Your task to perform on an android device: turn off picture-in-picture Image 0: 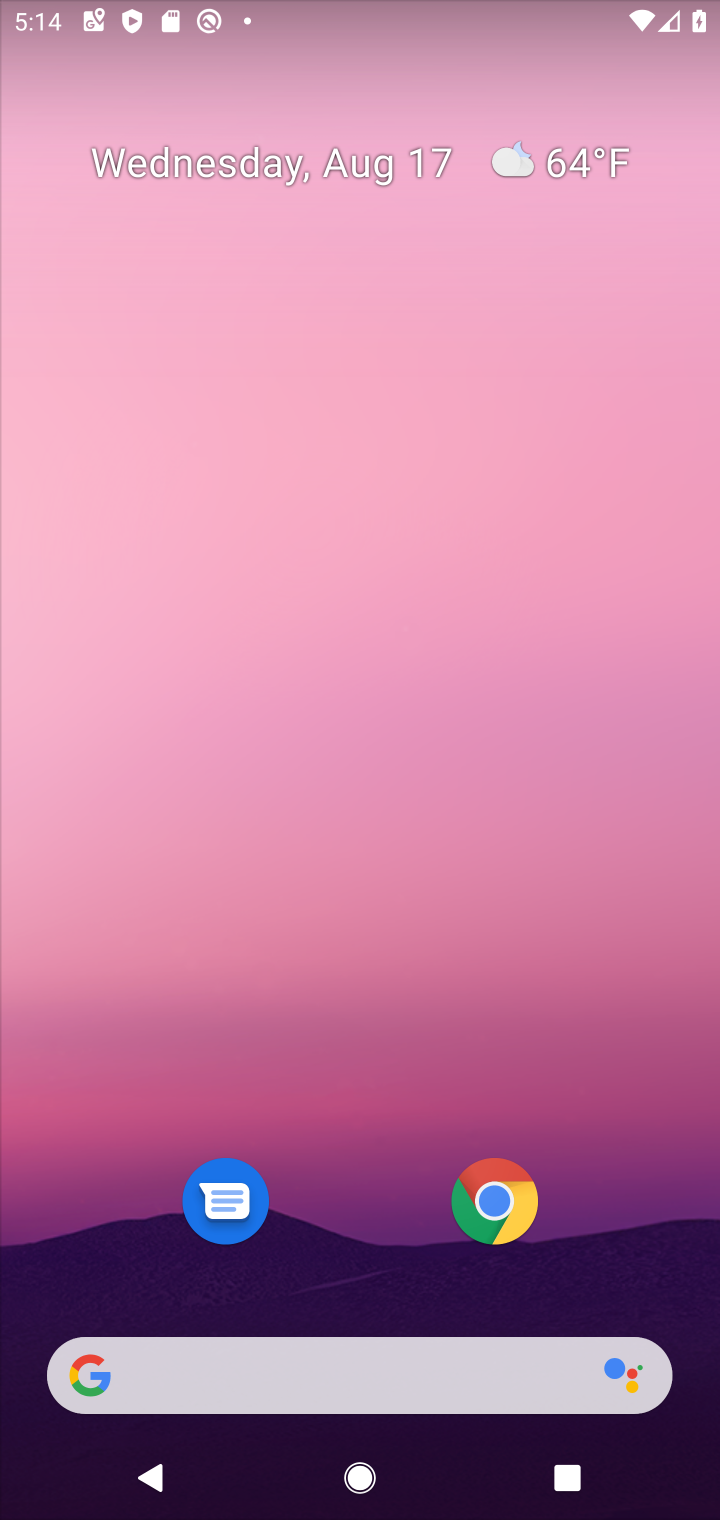
Step 0: click (489, 1241)
Your task to perform on an android device: turn off picture-in-picture Image 1: 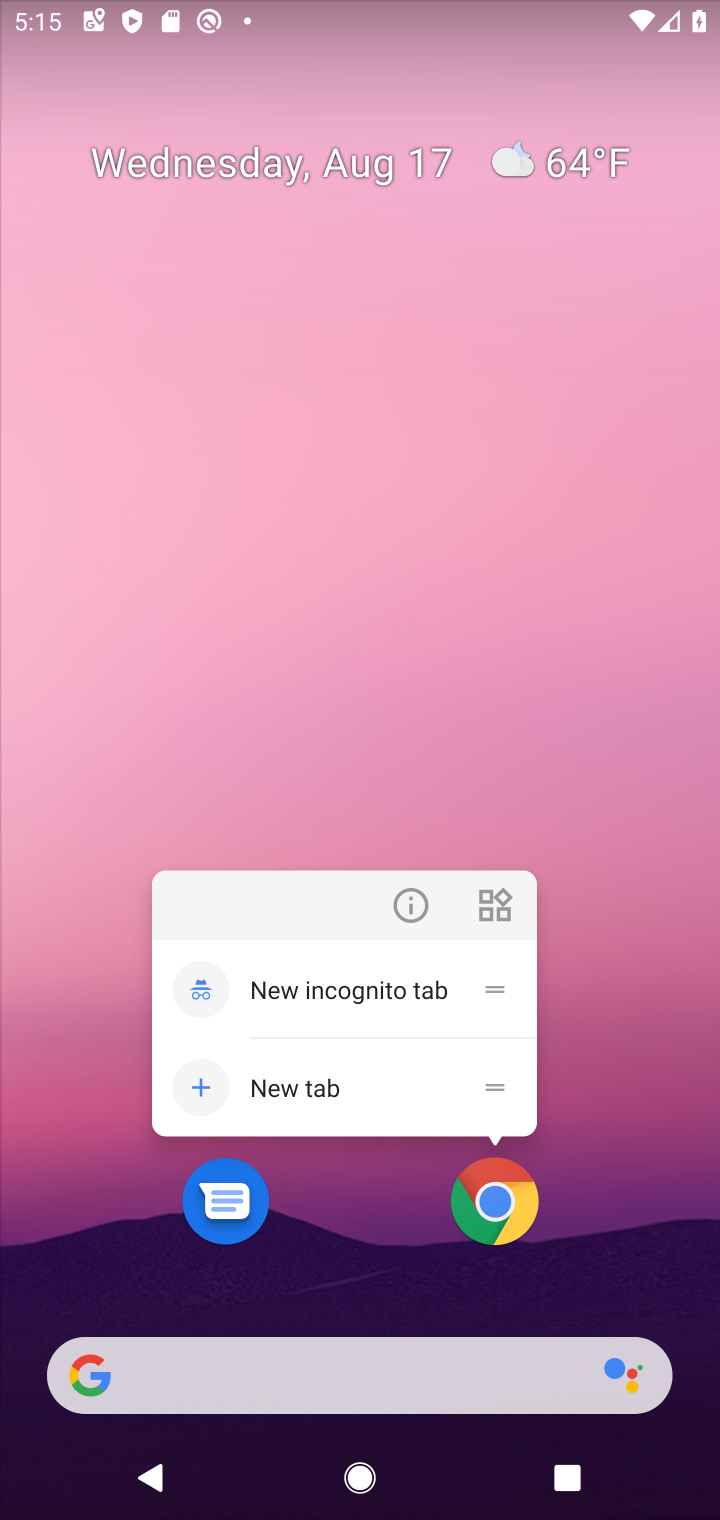
Step 1: click (430, 915)
Your task to perform on an android device: turn off picture-in-picture Image 2: 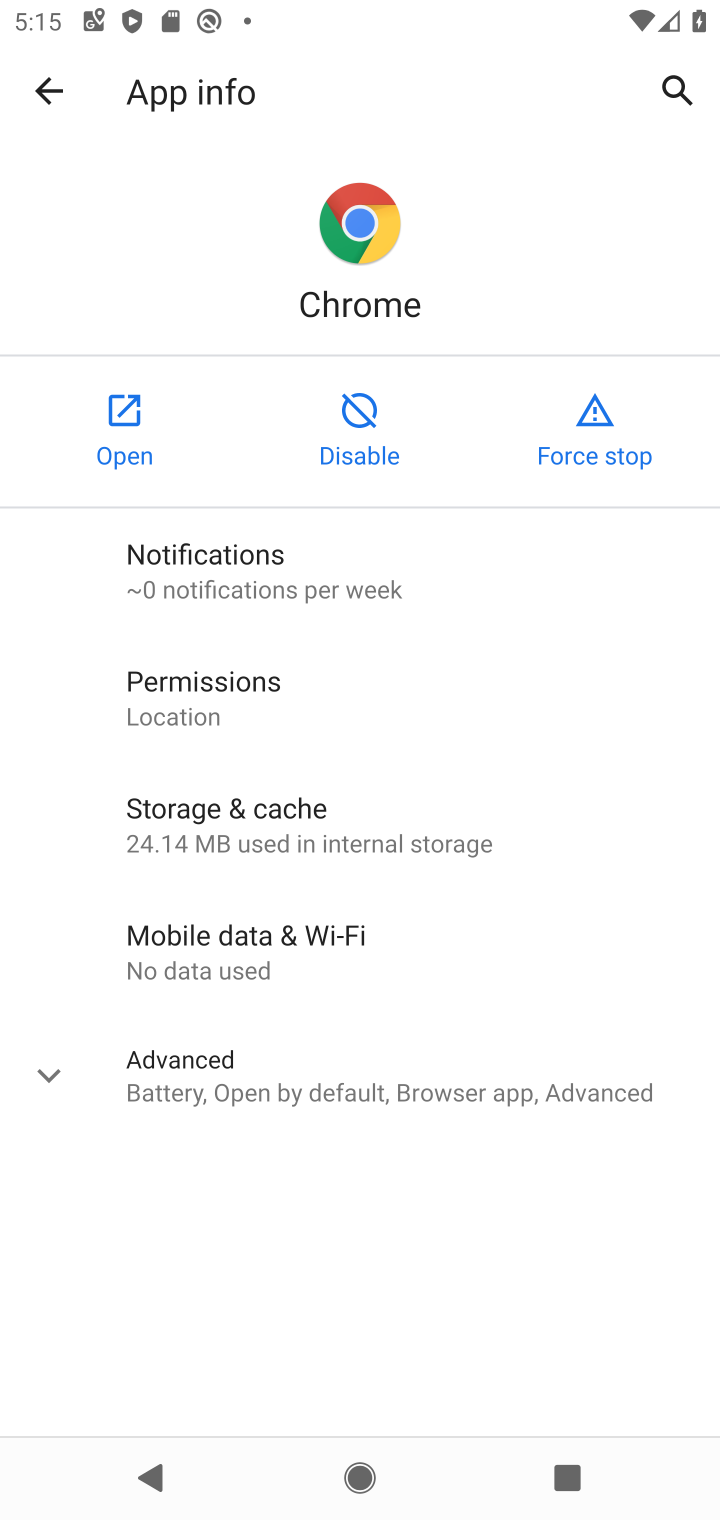
Step 2: click (226, 1067)
Your task to perform on an android device: turn off picture-in-picture Image 3: 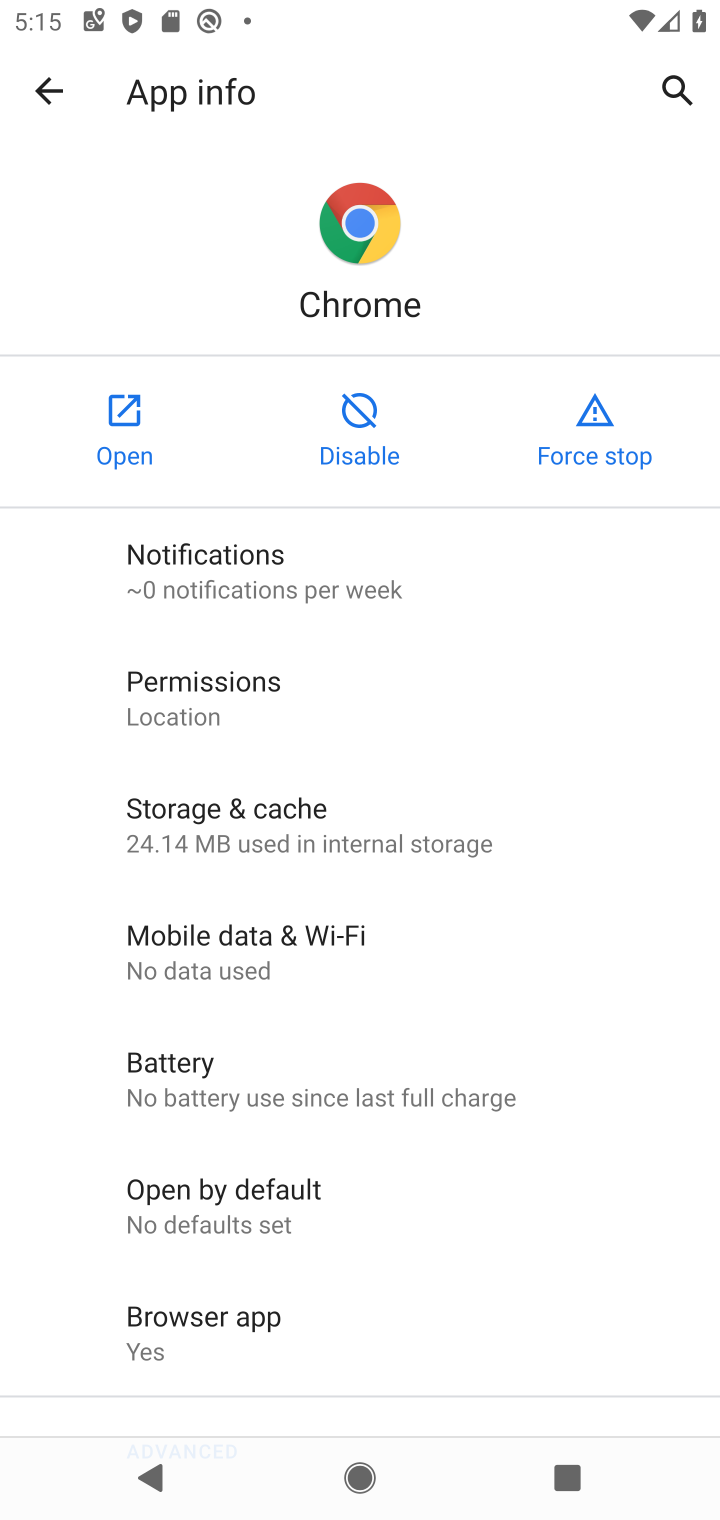
Step 3: drag from (440, 1245) to (387, 216)
Your task to perform on an android device: turn off picture-in-picture Image 4: 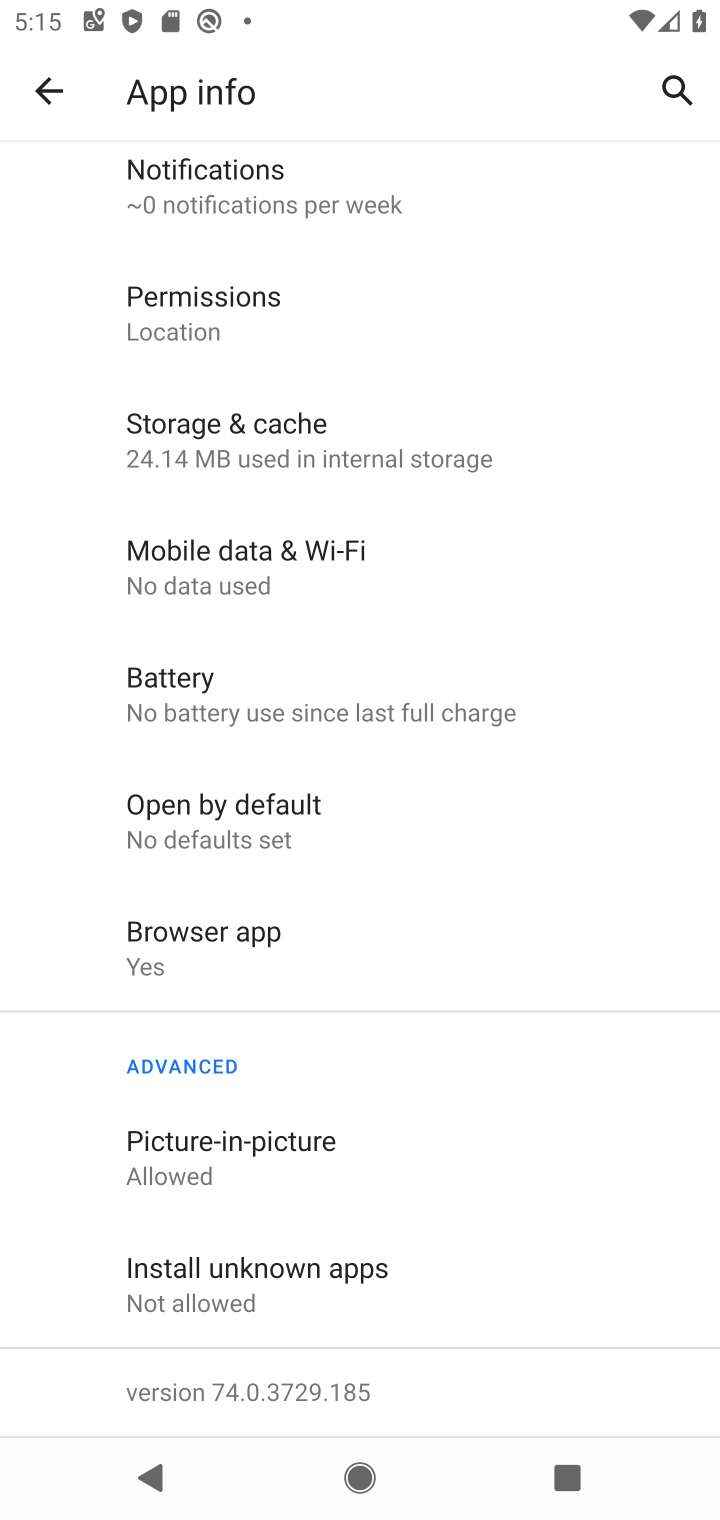
Step 4: click (204, 1173)
Your task to perform on an android device: turn off picture-in-picture Image 5: 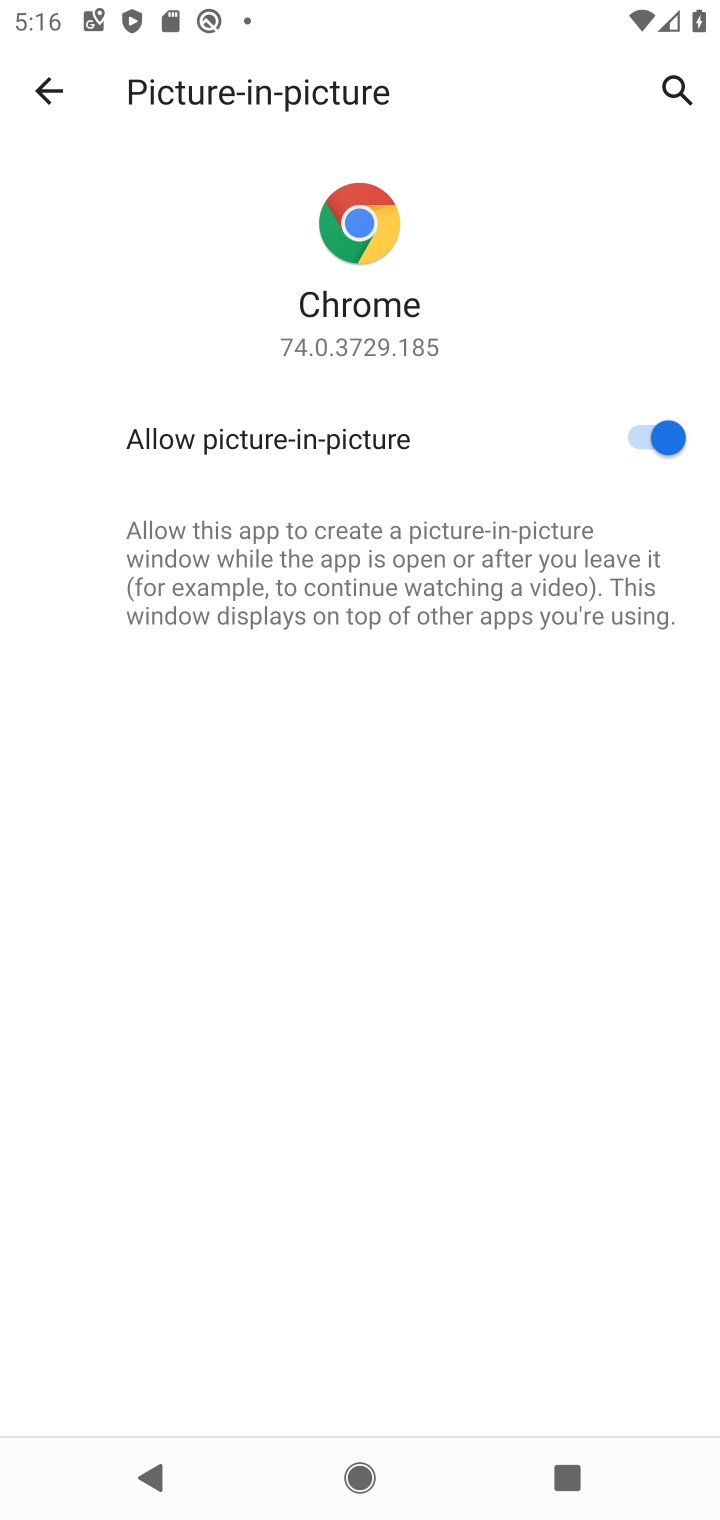
Step 5: click (676, 453)
Your task to perform on an android device: turn off picture-in-picture Image 6: 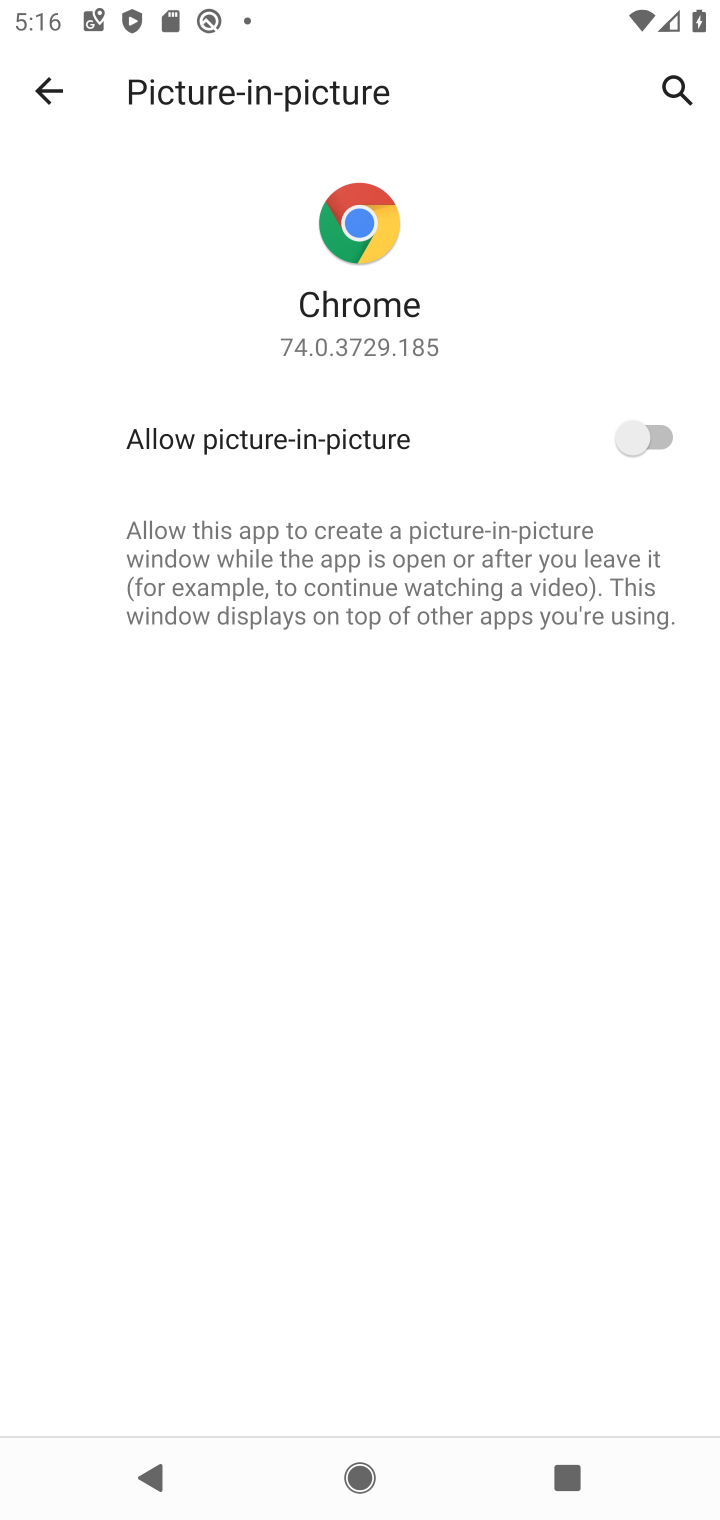
Step 6: task complete